Your task to perform on an android device: Open the calendar and show me this week's events? Image 0: 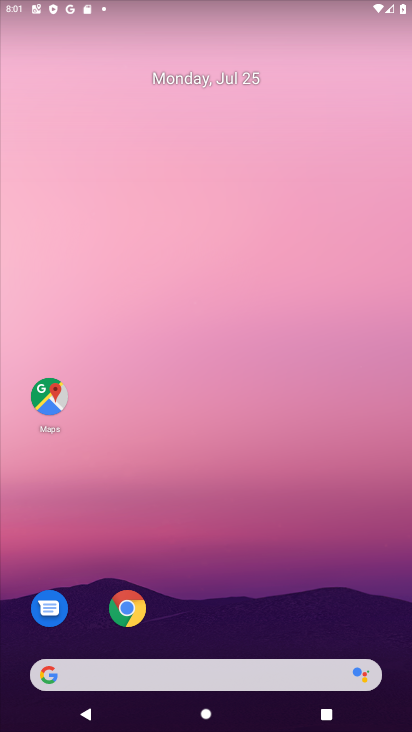
Step 0: drag from (271, 675) to (297, 55)
Your task to perform on an android device: Open the calendar and show me this week's events? Image 1: 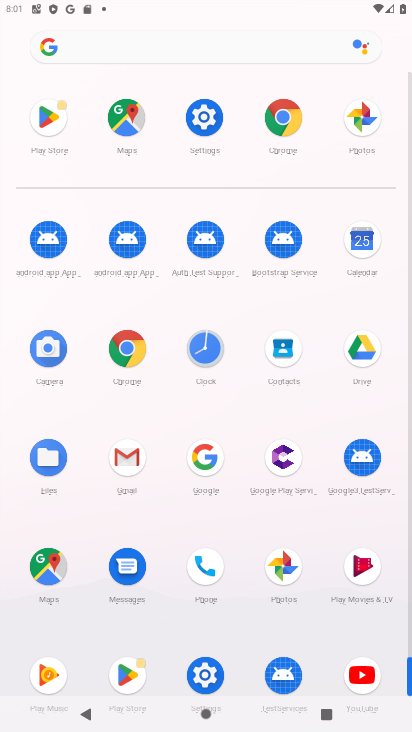
Step 1: click (358, 255)
Your task to perform on an android device: Open the calendar and show me this week's events? Image 2: 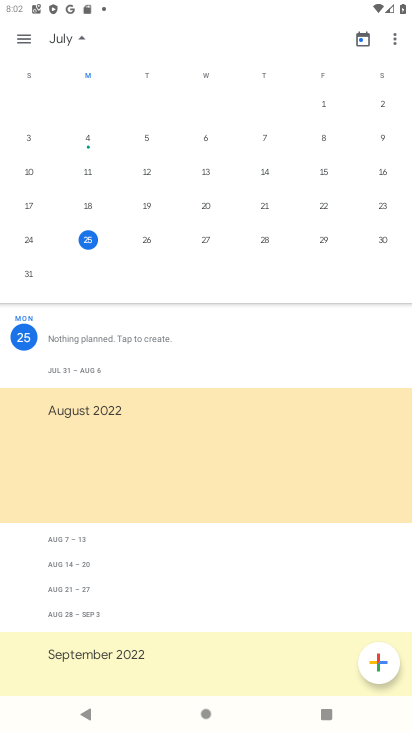
Step 2: task complete